Your task to perform on an android device: uninstall "Microsoft Authenticator" Image 0: 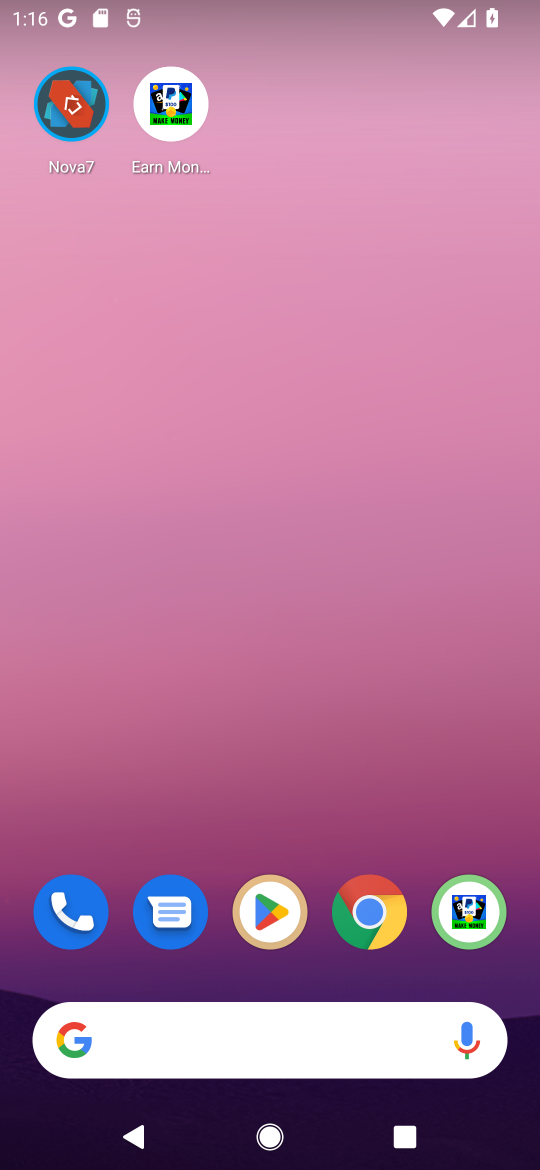
Step 0: click (257, 914)
Your task to perform on an android device: uninstall "Microsoft Authenticator" Image 1: 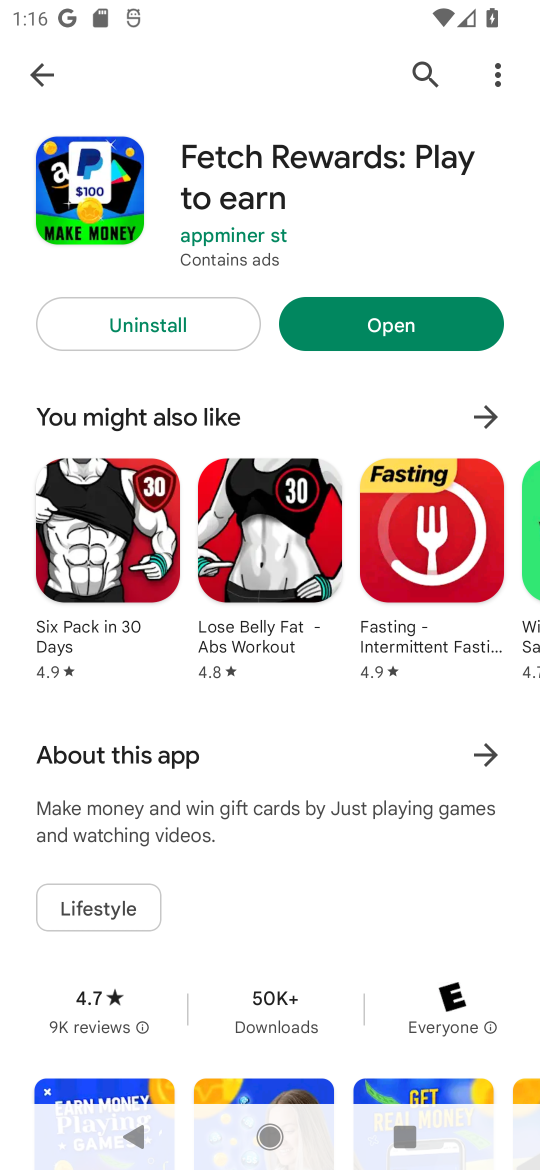
Step 1: click (418, 58)
Your task to perform on an android device: uninstall "Microsoft Authenticator" Image 2: 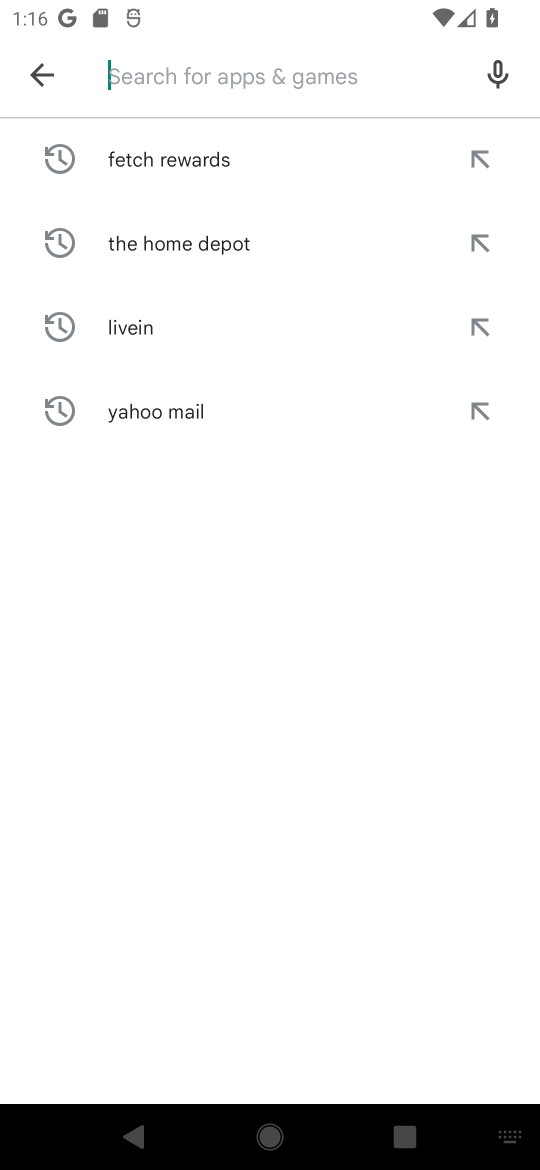
Step 2: click (204, 71)
Your task to perform on an android device: uninstall "Microsoft Authenticator" Image 3: 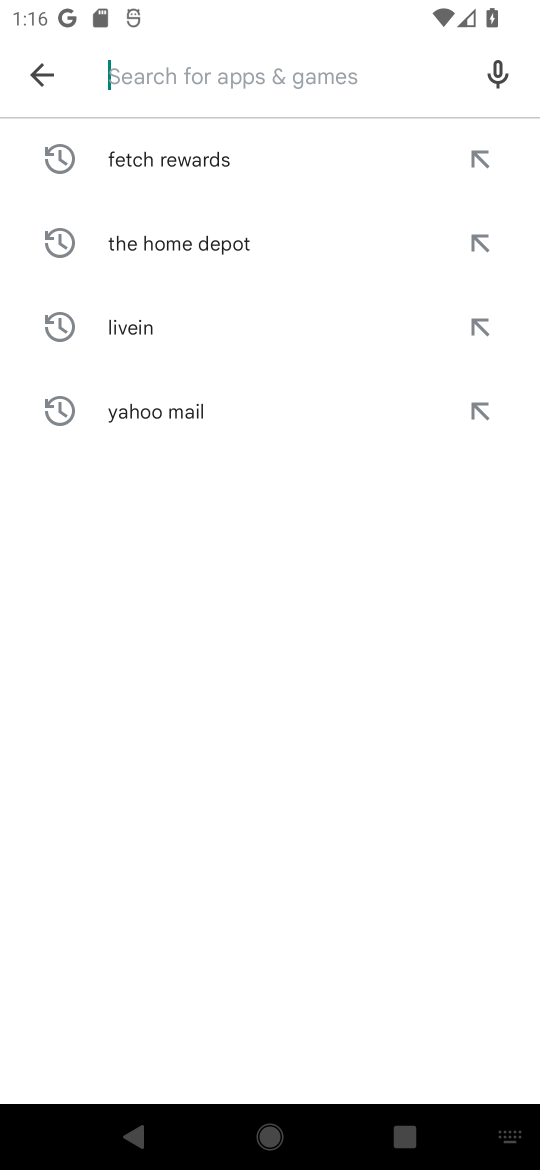
Step 3: type "Microsoft Authenticator"
Your task to perform on an android device: uninstall "Microsoft Authenticator" Image 4: 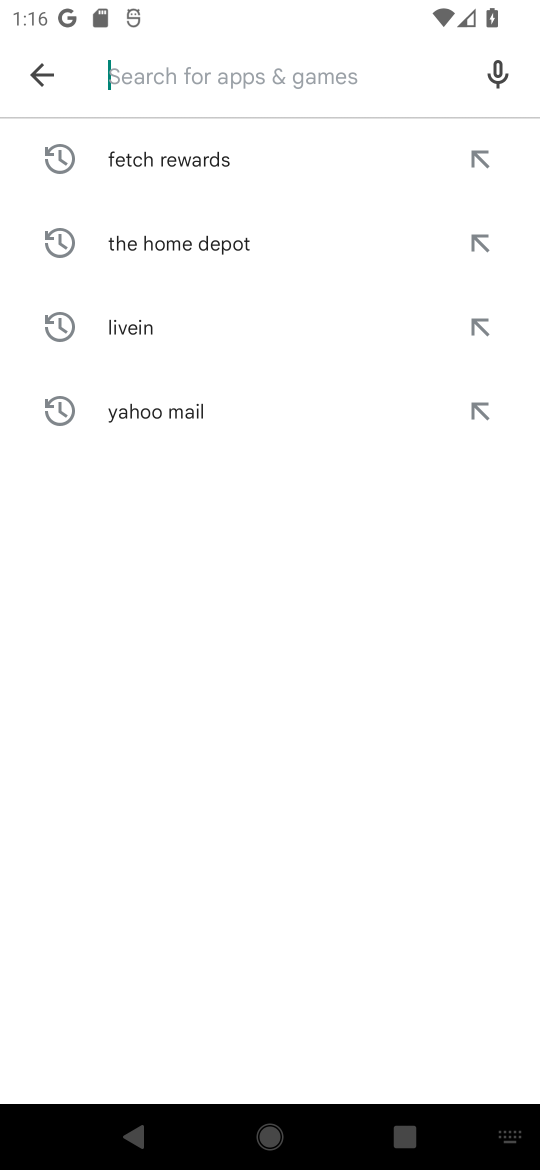
Step 4: click (306, 645)
Your task to perform on an android device: uninstall "Microsoft Authenticator" Image 5: 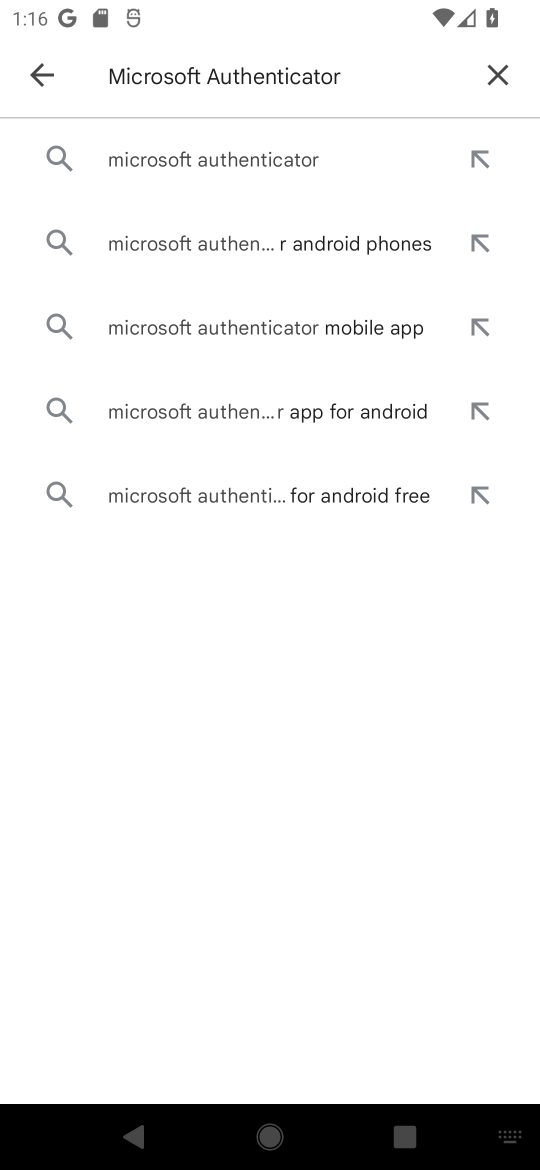
Step 5: click (241, 148)
Your task to perform on an android device: uninstall "Microsoft Authenticator" Image 6: 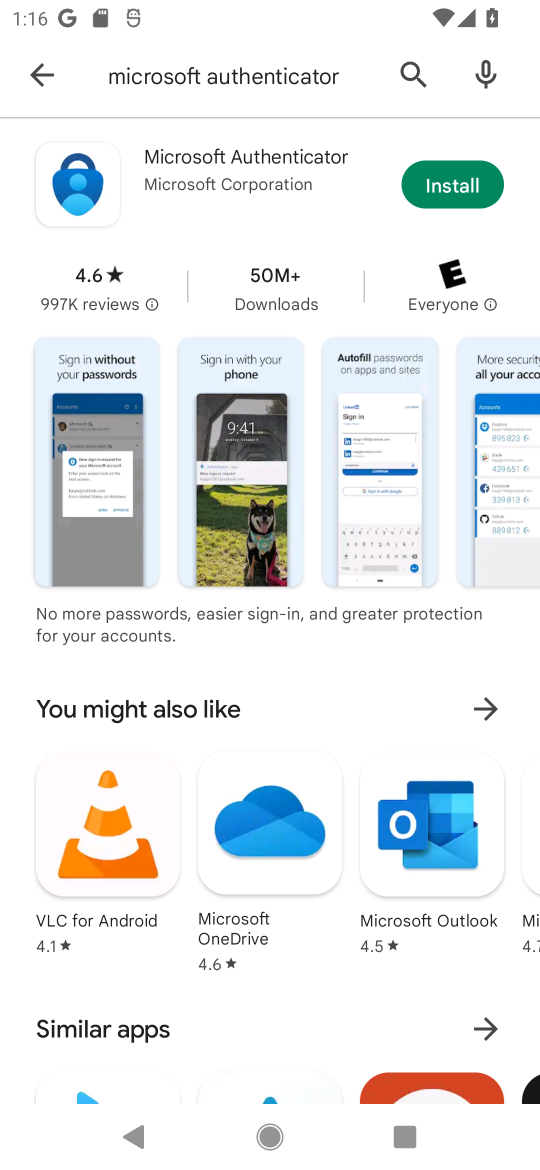
Step 6: task complete